Your task to perform on an android device: Show me popular games on the Play Store Image 0: 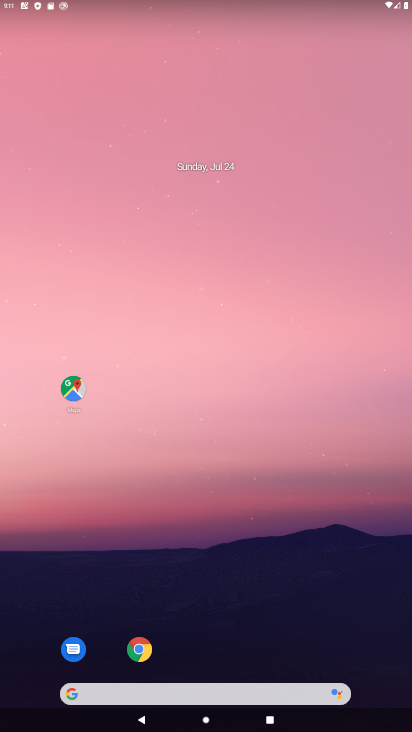
Step 0: drag from (372, 651) to (383, 159)
Your task to perform on an android device: Show me popular games on the Play Store Image 1: 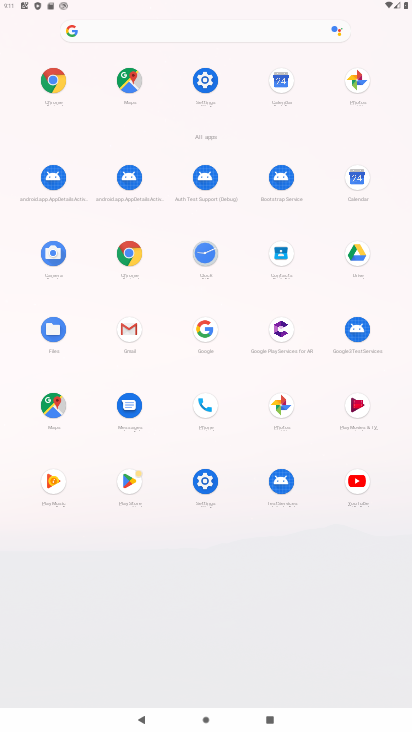
Step 1: click (125, 479)
Your task to perform on an android device: Show me popular games on the Play Store Image 2: 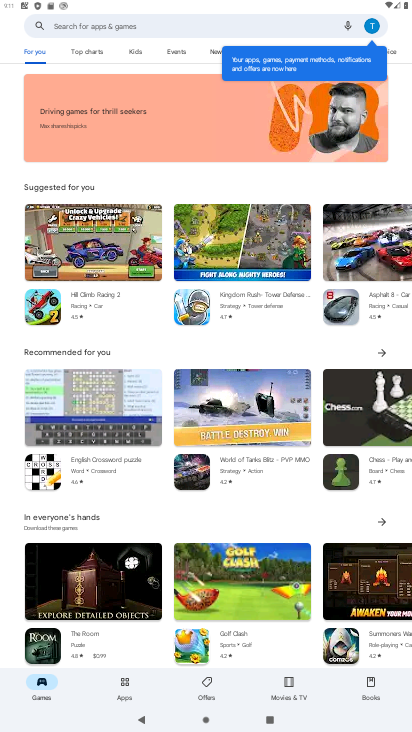
Step 2: task complete